Your task to perform on an android device: Go to accessibility settings Image 0: 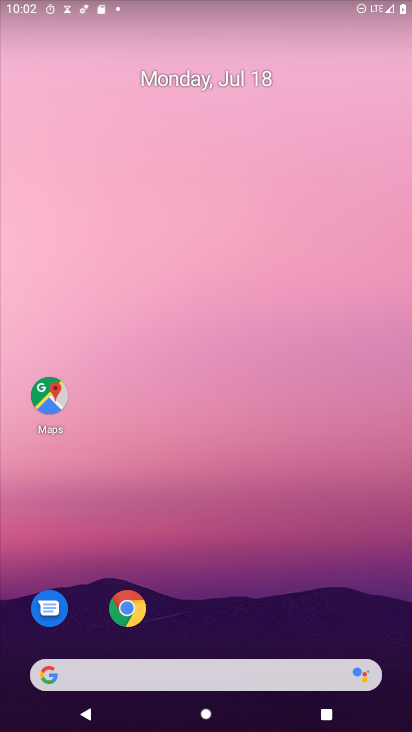
Step 0: click (204, 61)
Your task to perform on an android device: Go to accessibility settings Image 1: 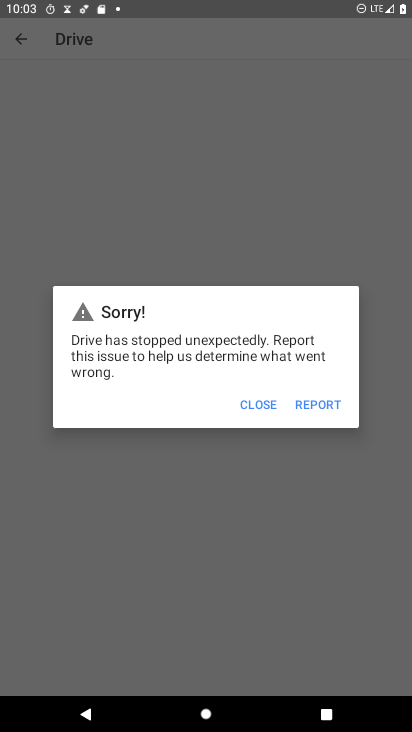
Step 1: press home button
Your task to perform on an android device: Go to accessibility settings Image 2: 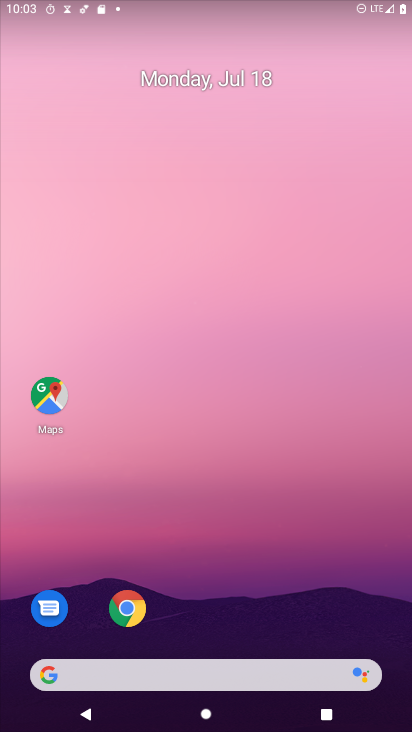
Step 2: drag from (172, 593) to (234, 121)
Your task to perform on an android device: Go to accessibility settings Image 3: 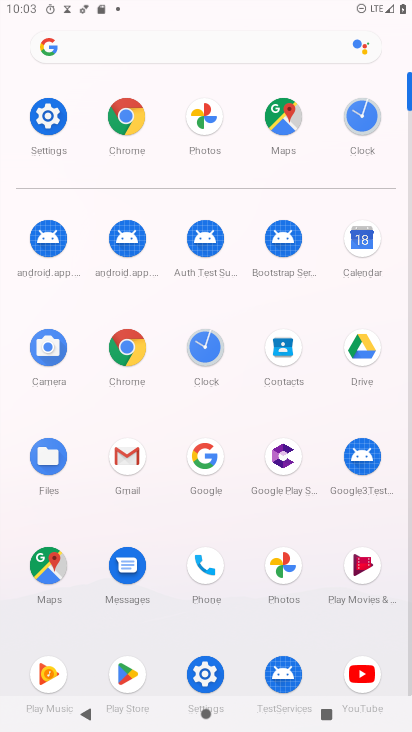
Step 3: click (49, 114)
Your task to perform on an android device: Go to accessibility settings Image 4: 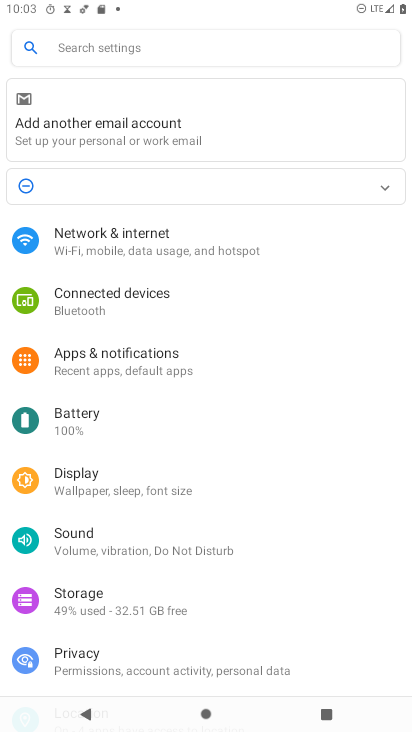
Step 4: drag from (192, 593) to (190, 418)
Your task to perform on an android device: Go to accessibility settings Image 5: 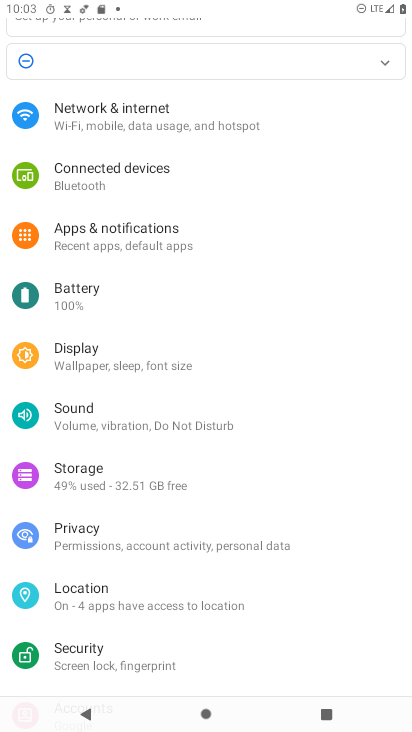
Step 5: drag from (146, 460) to (153, 418)
Your task to perform on an android device: Go to accessibility settings Image 6: 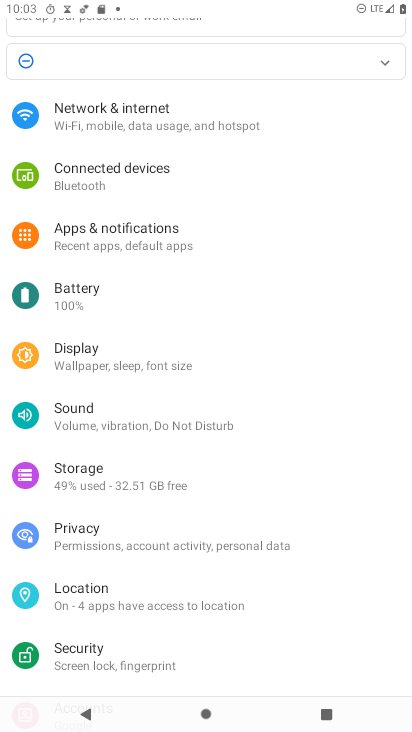
Step 6: drag from (95, 556) to (137, 303)
Your task to perform on an android device: Go to accessibility settings Image 7: 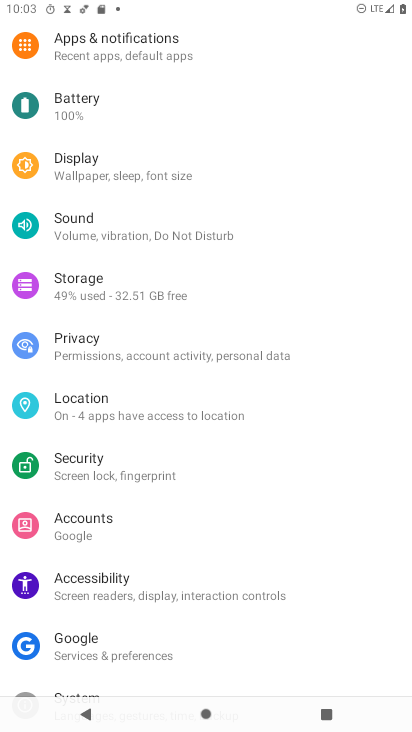
Step 7: click (77, 583)
Your task to perform on an android device: Go to accessibility settings Image 8: 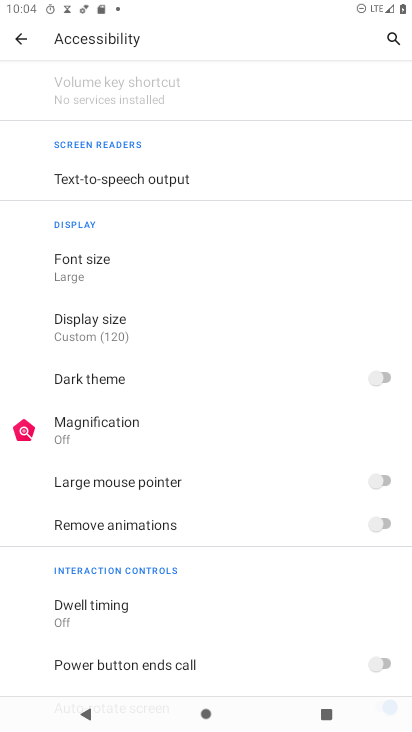
Step 8: task complete